Your task to perform on an android device: change alarm snooze length Image 0: 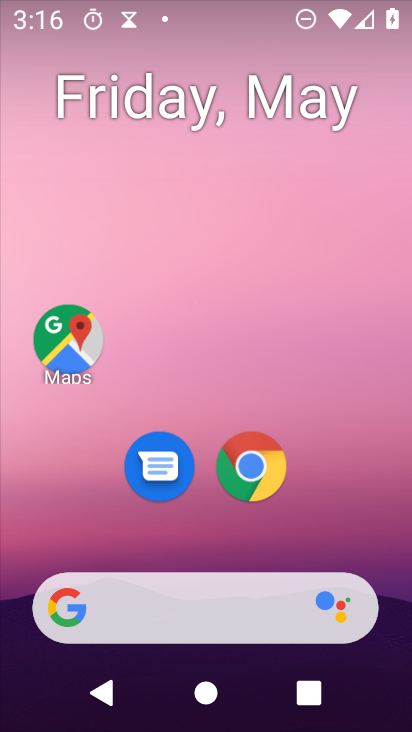
Step 0: drag from (370, 468) to (360, 55)
Your task to perform on an android device: change alarm snooze length Image 1: 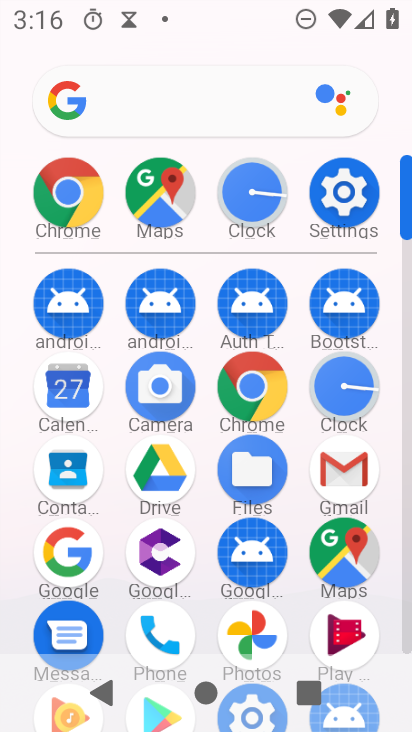
Step 1: click (254, 177)
Your task to perform on an android device: change alarm snooze length Image 2: 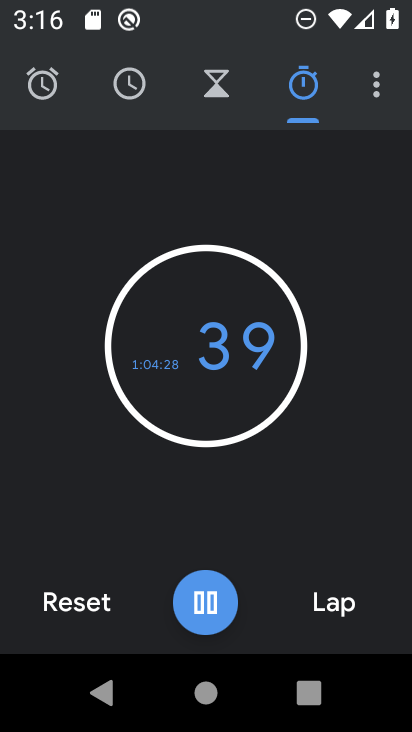
Step 2: click (383, 89)
Your task to perform on an android device: change alarm snooze length Image 3: 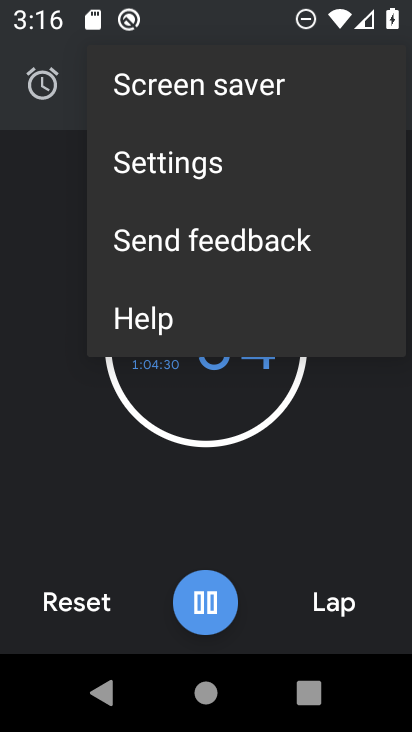
Step 3: click (168, 166)
Your task to perform on an android device: change alarm snooze length Image 4: 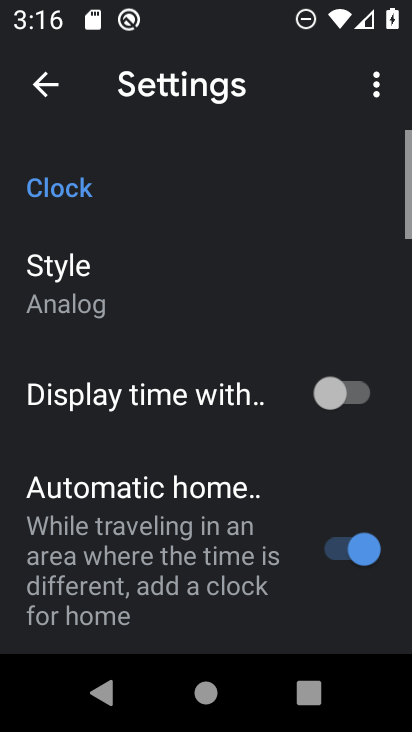
Step 4: drag from (152, 535) to (219, 119)
Your task to perform on an android device: change alarm snooze length Image 5: 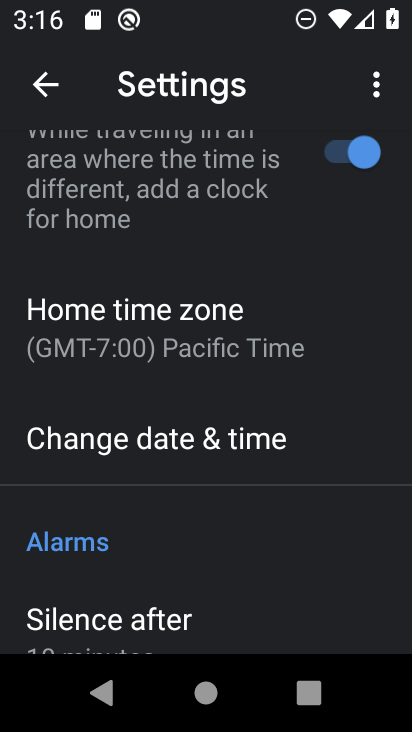
Step 5: drag from (220, 122) to (183, 556)
Your task to perform on an android device: change alarm snooze length Image 6: 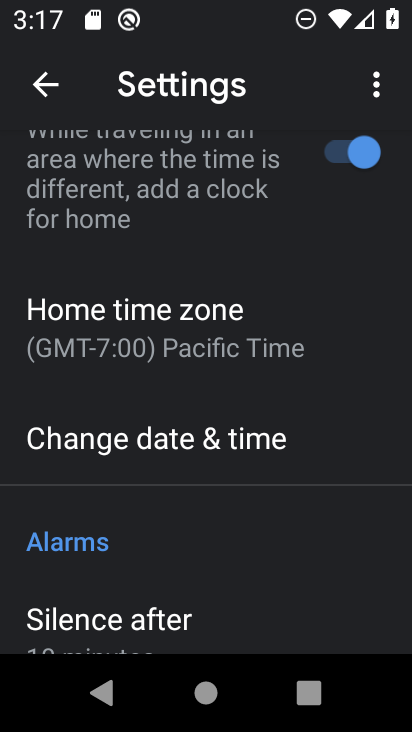
Step 6: drag from (226, 246) to (210, 561)
Your task to perform on an android device: change alarm snooze length Image 7: 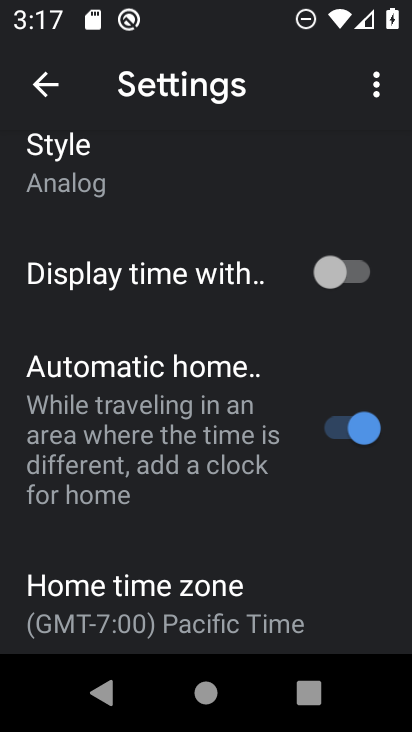
Step 7: drag from (215, 194) to (181, 594)
Your task to perform on an android device: change alarm snooze length Image 8: 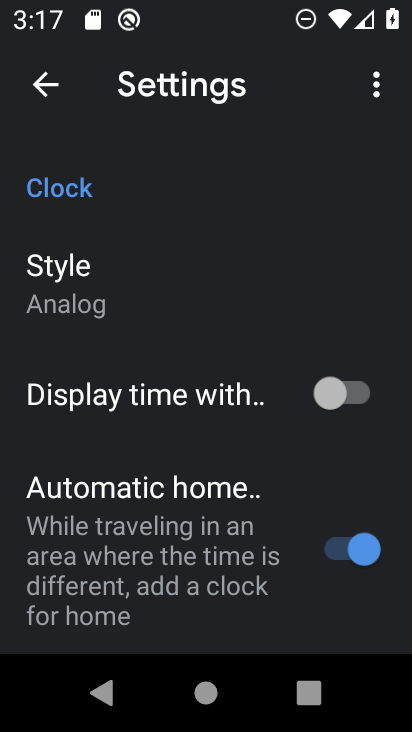
Step 8: drag from (179, 536) to (235, 211)
Your task to perform on an android device: change alarm snooze length Image 9: 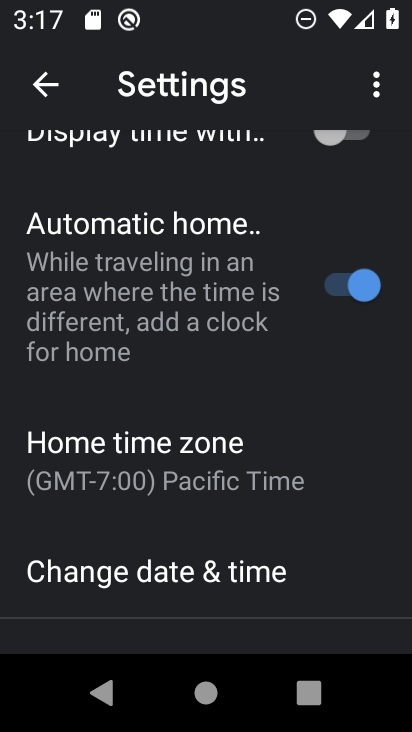
Step 9: drag from (166, 540) to (224, 221)
Your task to perform on an android device: change alarm snooze length Image 10: 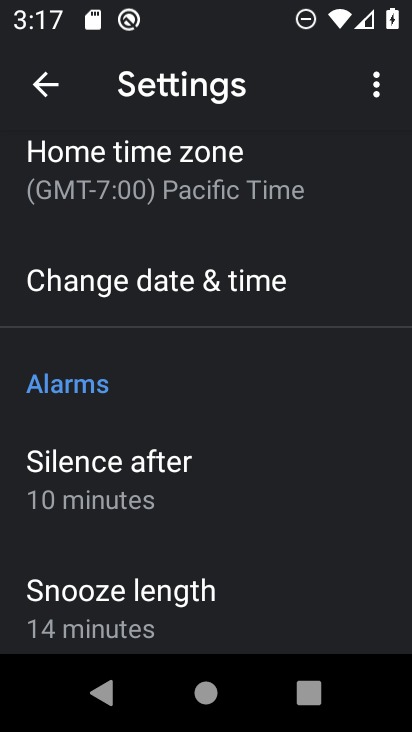
Step 10: drag from (242, 581) to (294, 217)
Your task to perform on an android device: change alarm snooze length Image 11: 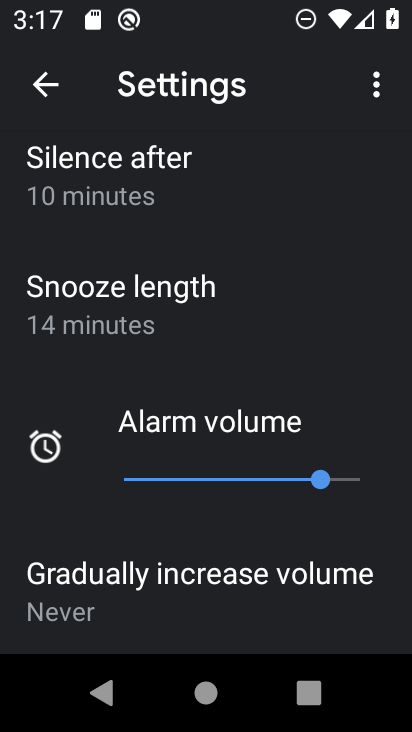
Step 11: click (266, 480)
Your task to perform on an android device: change alarm snooze length Image 12: 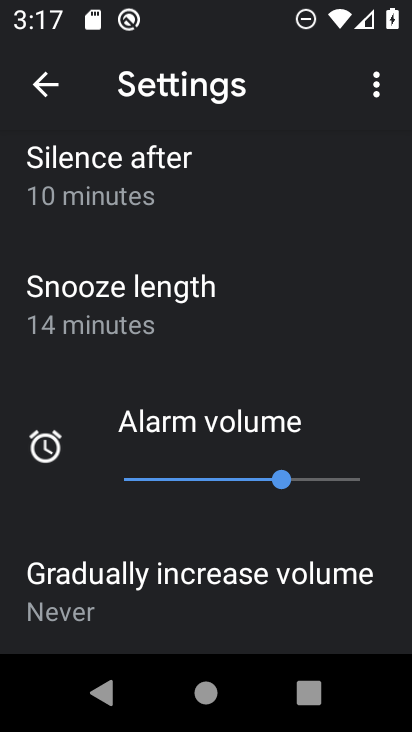
Step 12: click (112, 308)
Your task to perform on an android device: change alarm snooze length Image 13: 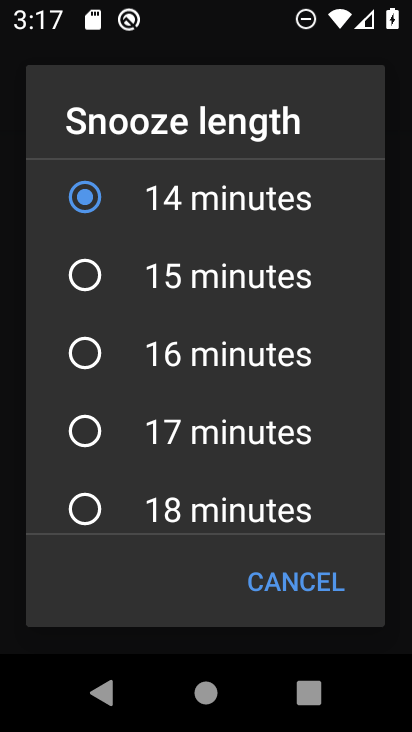
Step 13: click (84, 372)
Your task to perform on an android device: change alarm snooze length Image 14: 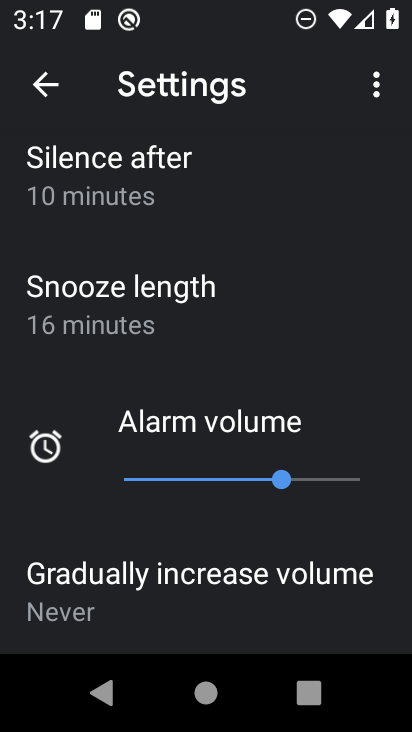
Step 14: task complete